Your task to perform on an android device: delete browsing data in the chrome app Image 0: 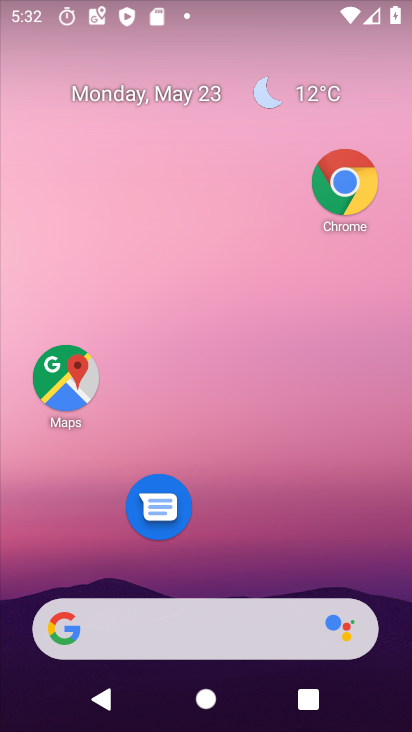
Step 0: click (338, 193)
Your task to perform on an android device: delete browsing data in the chrome app Image 1: 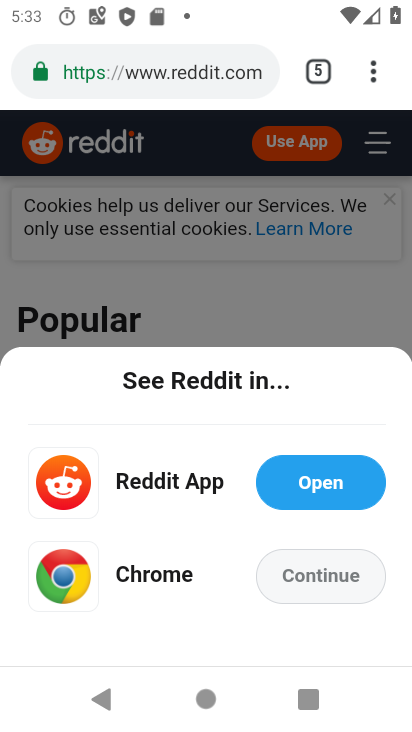
Step 1: click (372, 71)
Your task to perform on an android device: delete browsing data in the chrome app Image 2: 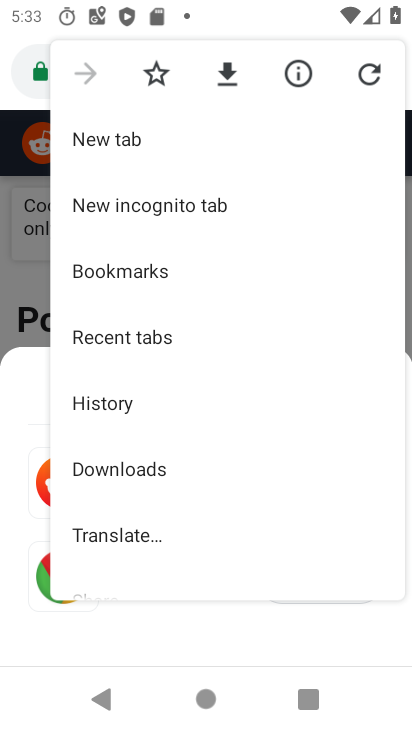
Step 2: click (121, 410)
Your task to perform on an android device: delete browsing data in the chrome app Image 3: 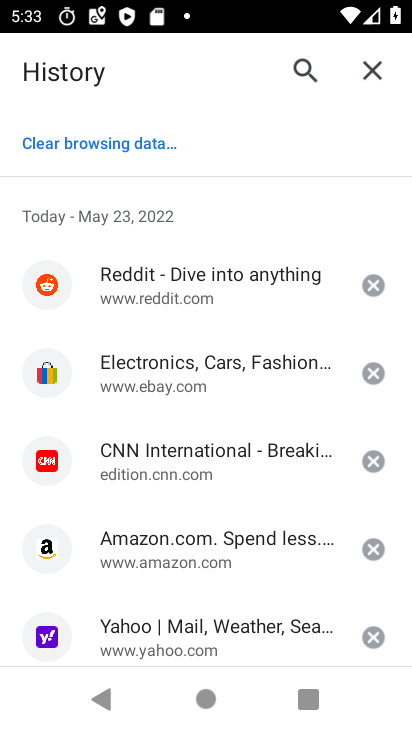
Step 3: click (95, 133)
Your task to perform on an android device: delete browsing data in the chrome app Image 4: 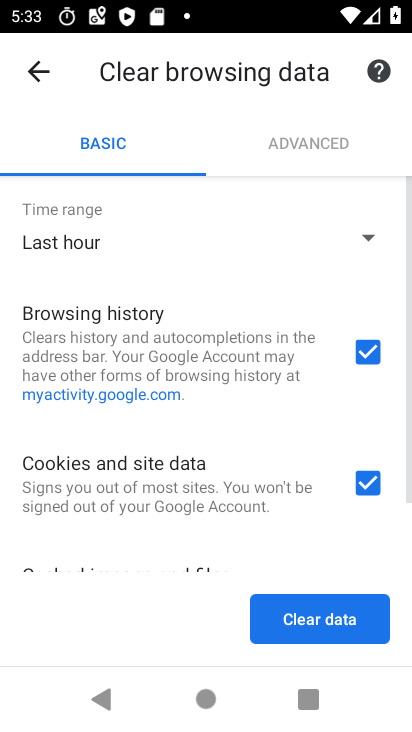
Step 4: click (322, 618)
Your task to perform on an android device: delete browsing data in the chrome app Image 5: 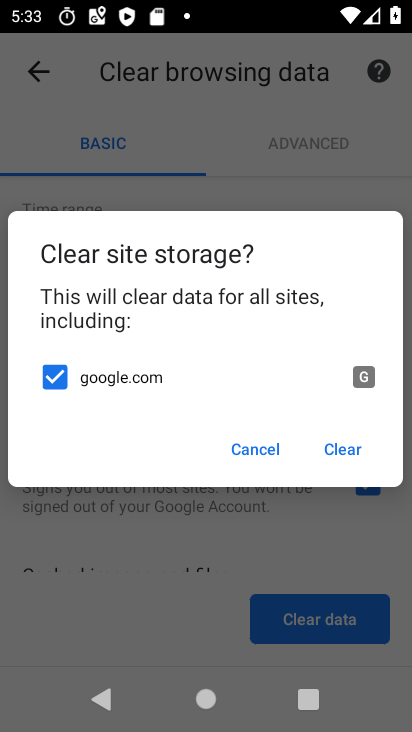
Step 5: click (342, 425)
Your task to perform on an android device: delete browsing data in the chrome app Image 6: 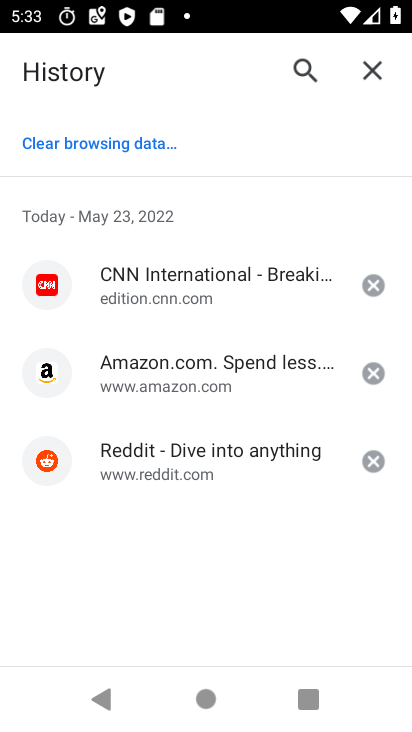
Step 6: task complete